Your task to perform on an android device: What's the weather going to be this weekend? Image 0: 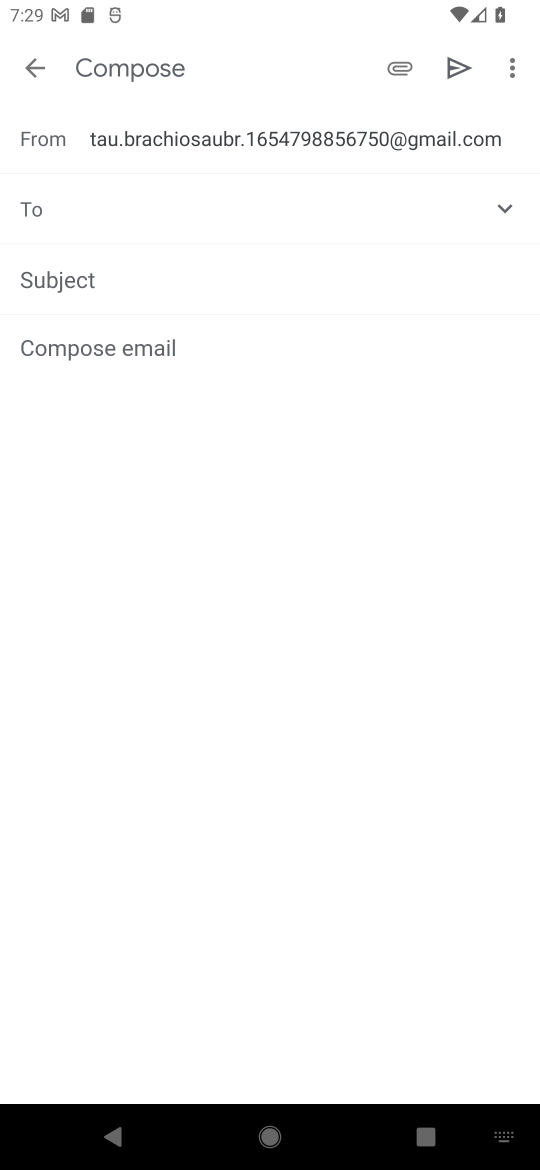
Step 0: press home button
Your task to perform on an android device: What's the weather going to be this weekend? Image 1: 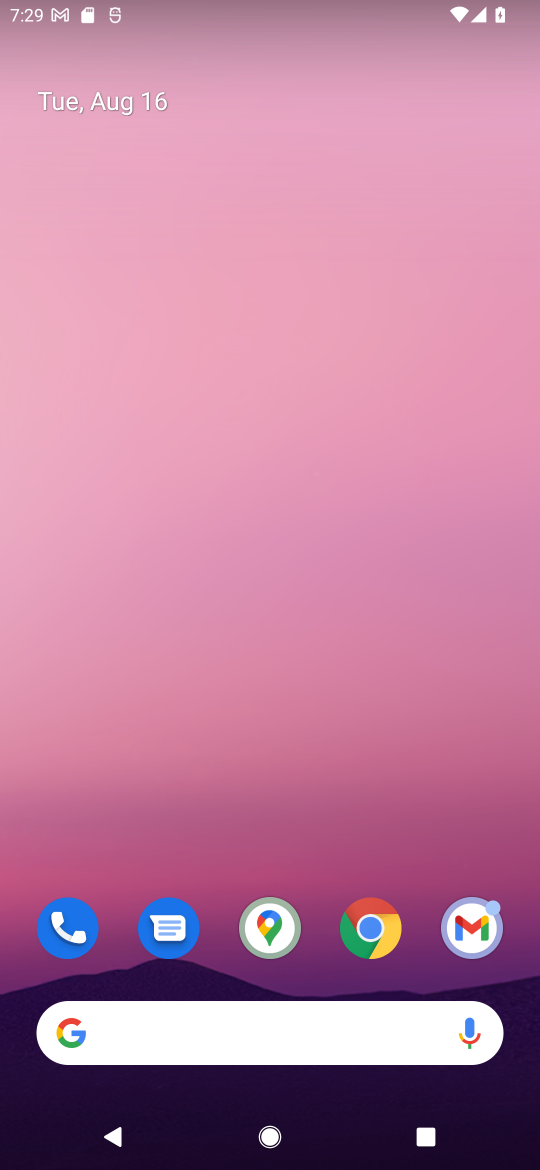
Step 1: click (367, 943)
Your task to perform on an android device: What's the weather going to be this weekend? Image 2: 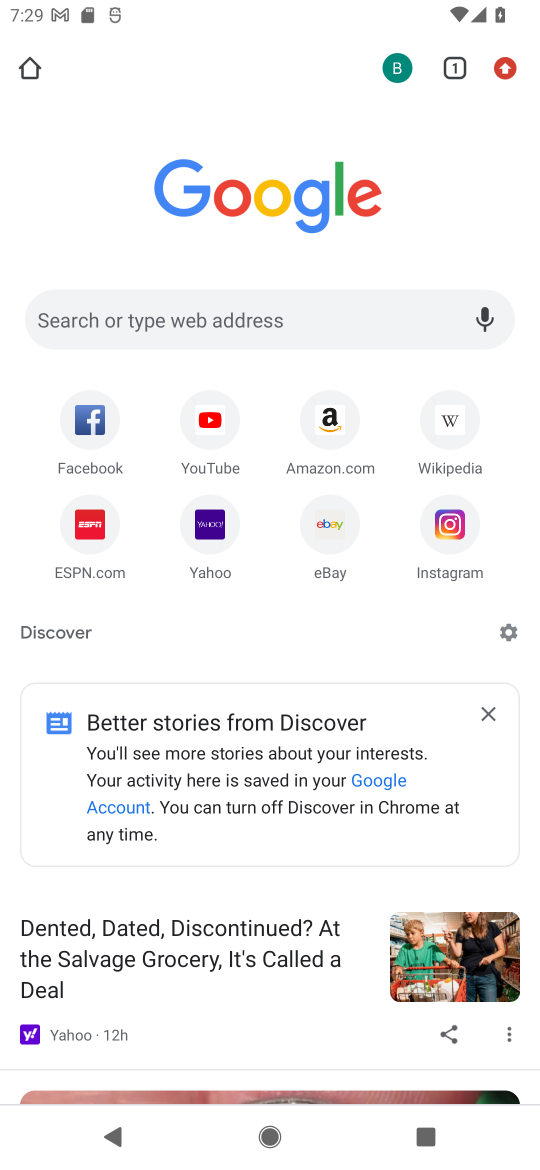
Step 2: click (202, 309)
Your task to perform on an android device: What's the weather going to be this weekend? Image 3: 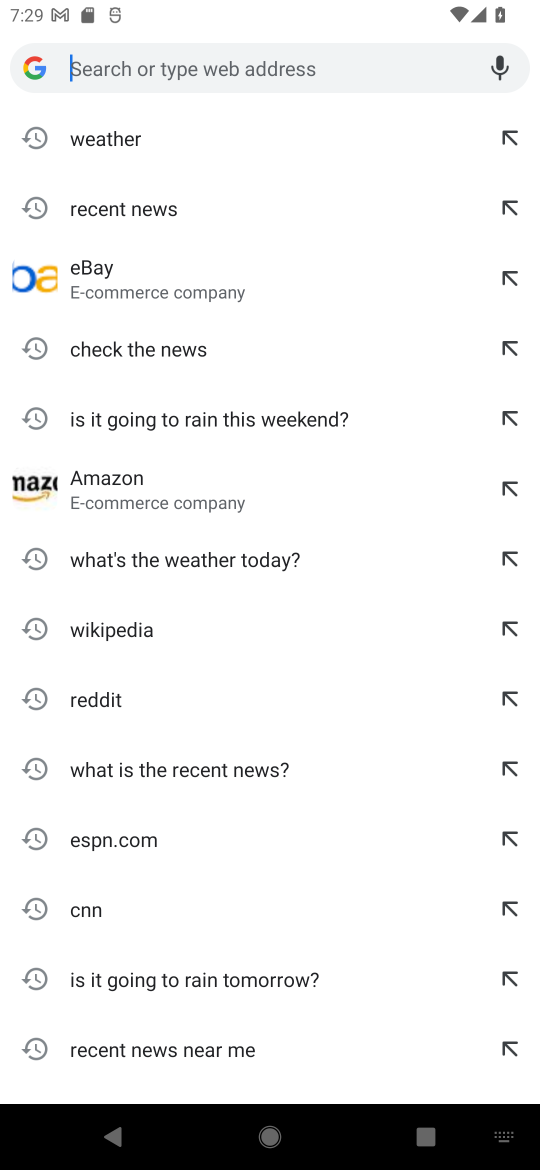
Step 3: type "weather weekend"
Your task to perform on an android device: What's the weather going to be this weekend? Image 4: 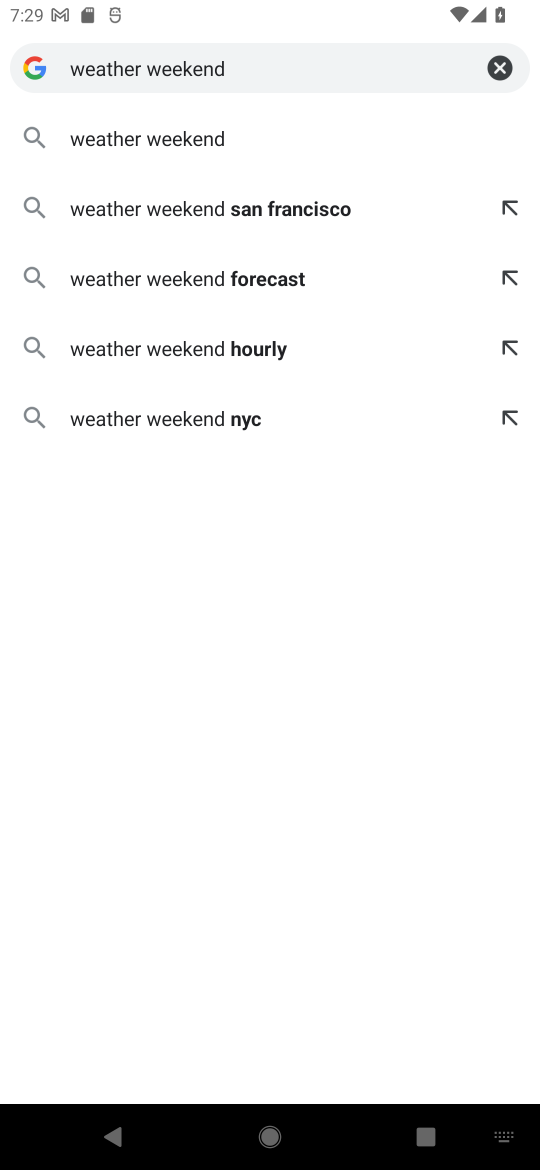
Step 4: click (209, 141)
Your task to perform on an android device: What's the weather going to be this weekend? Image 5: 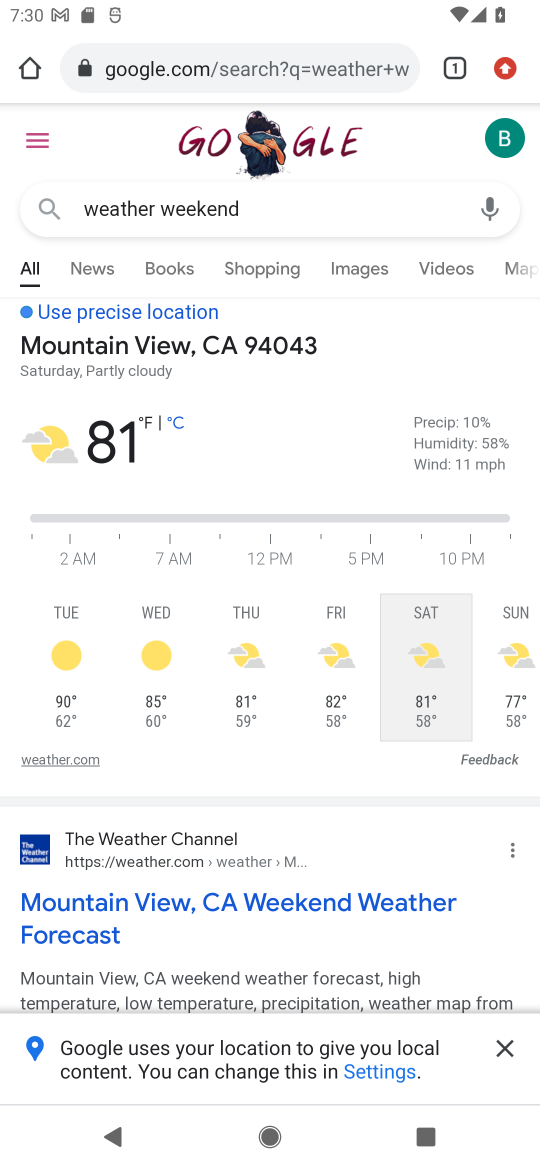
Step 5: task complete